Your task to perform on an android device: turn on sleep mode Image 0: 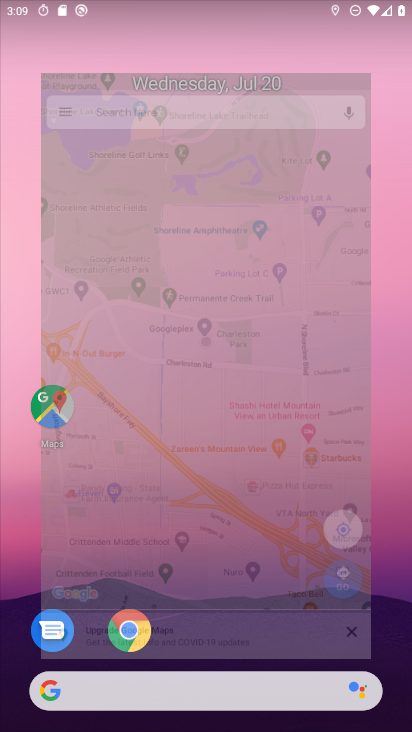
Step 0: click (308, 240)
Your task to perform on an android device: turn on sleep mode Image 1: 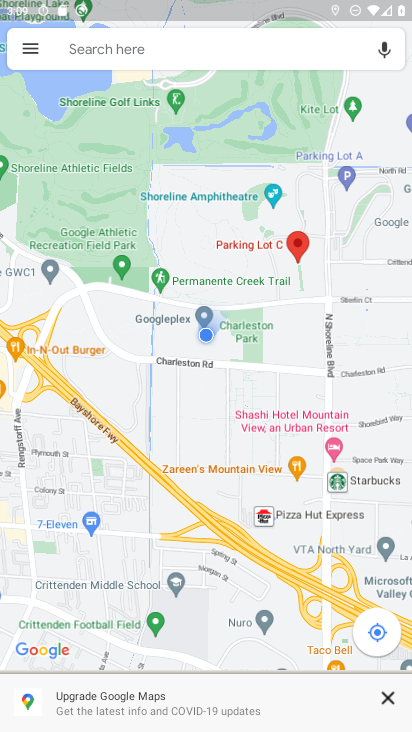
Step 1: press back button
Your task to perform on an android device: turn on sleep mode Image 2: 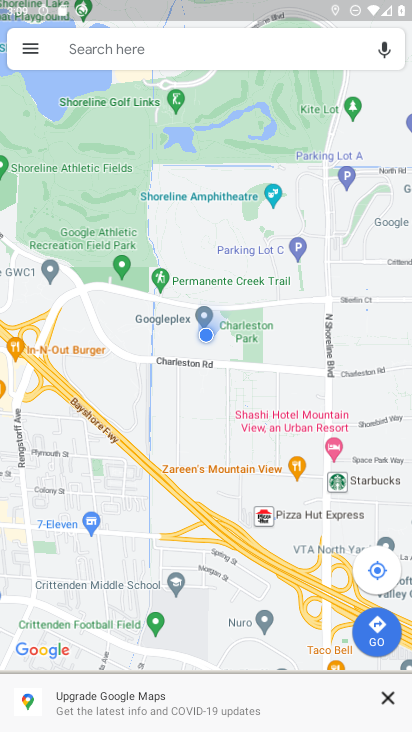
Step 2: press home button
Your task to perform on an android device: turn on sleep mode Image 3: 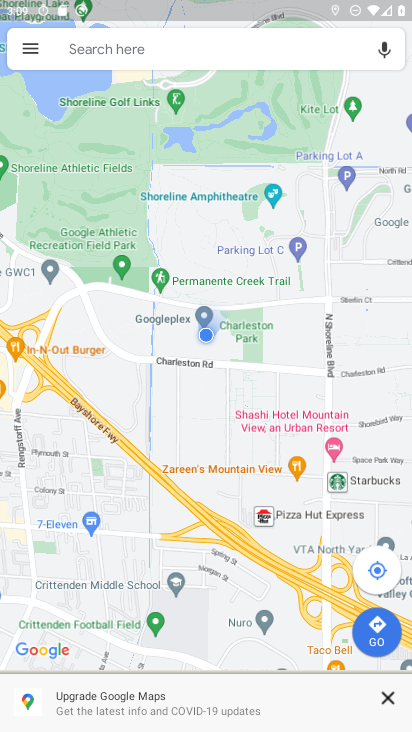
Step 3: click (249, 171)
Your task to perform on an android device: turn on sleep mode Image 4: 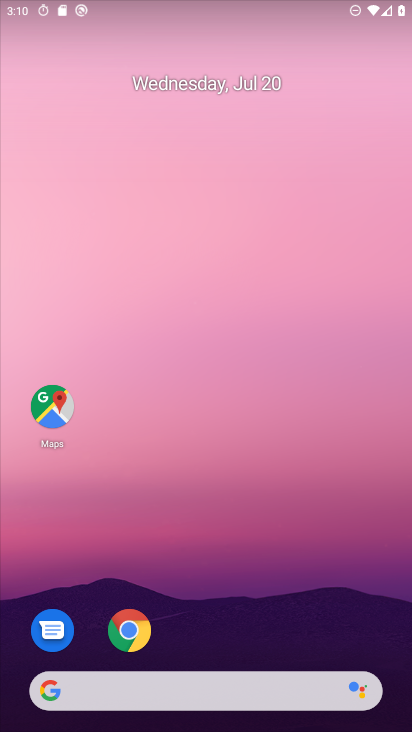
Step 4: drag from (261, 515) to (252, 223)
Your task to perform on an android device: turn on sleep mode Image 5: 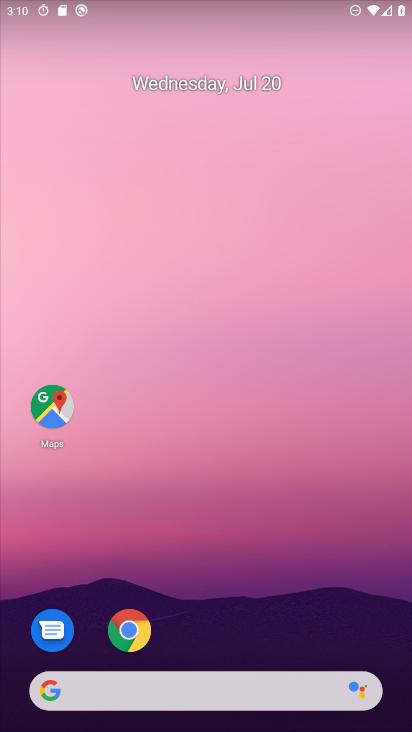
Step 5: drag from (226, 429) to (241, 34)
Your task to perform on an android device: turn on sleep mode Image 6: 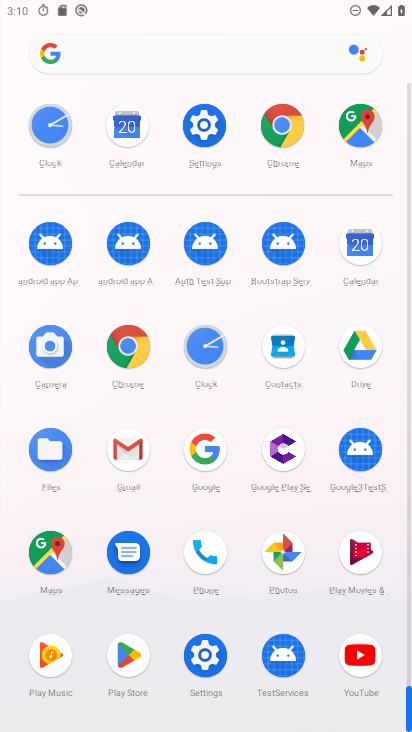
Step 6: click (213, 120)
Your task to perform on an android device: turn on sleep mode Image 7: 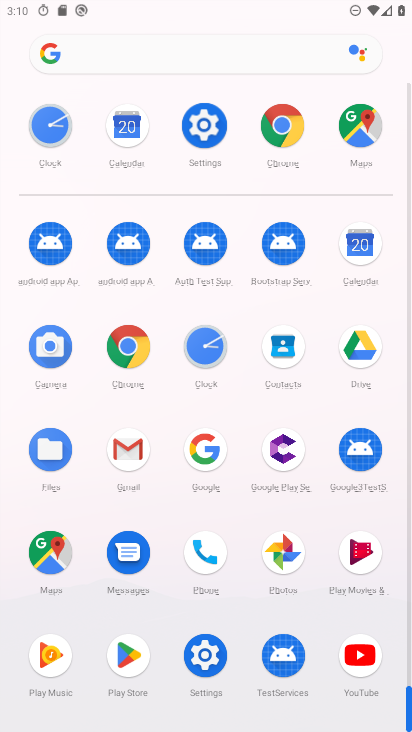
Step 7: click (212, 121)
Your task to perform on an android device: turn on sleep mode Image 8: 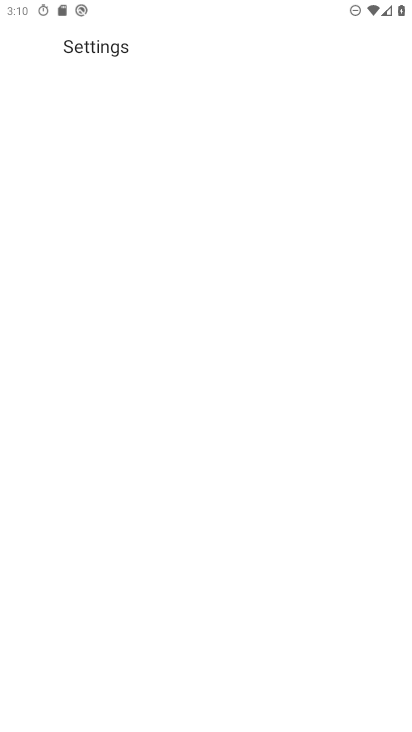
Step 8: click (201, 125)
Your task to perform on an android device: turn on sleep mode Image 9: 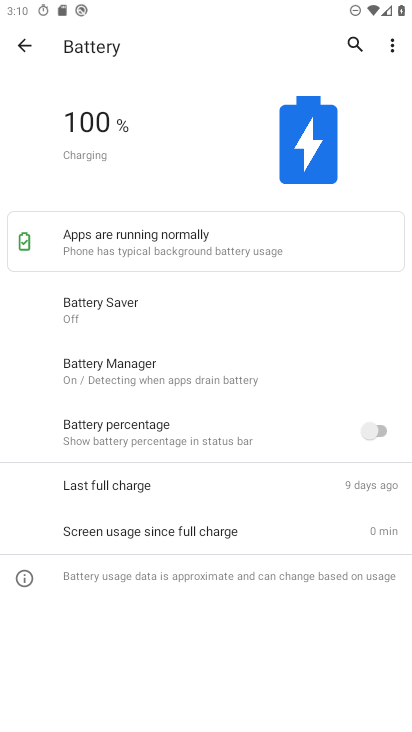
Step 9: click (15, 60)
Your task to perform on an android device: turn on sleep mode Image 10: 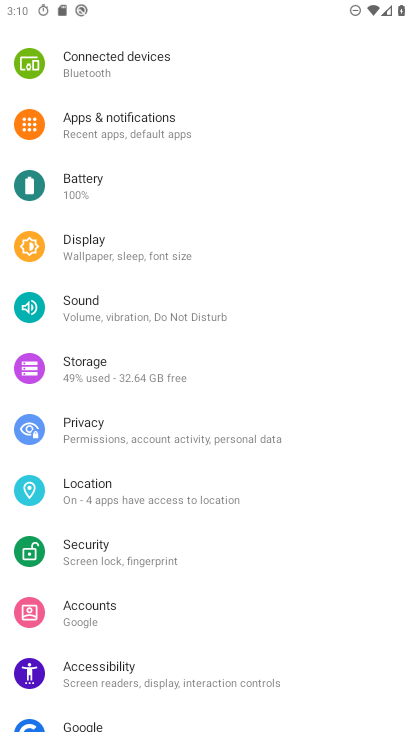
Step 10: click (108, 244)
Your task to perform on an android device: turn on sleep mode Image 11: 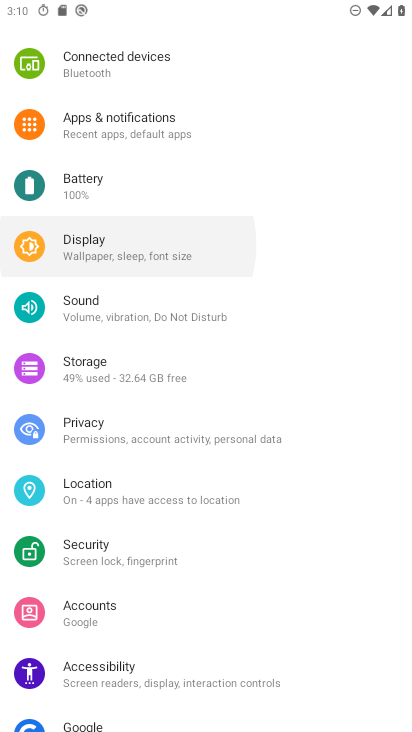
Step 11: click (108, 244)
Your task to perform on an android device: turn on sleep mode Image 12: 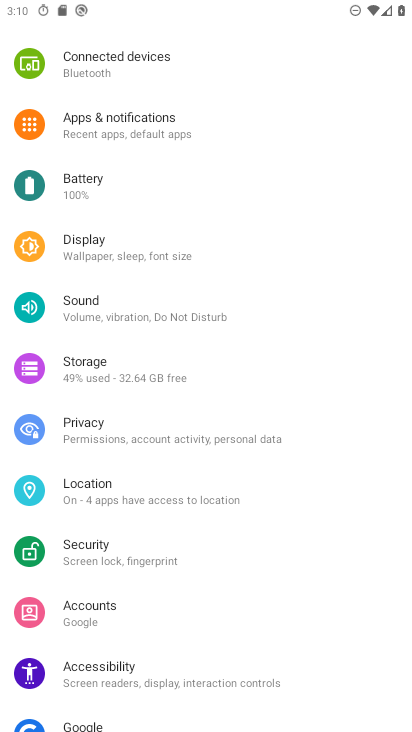
Step 12: click (108, 244)
Your task to perform on an android device: turn on sleep mode Image 13: 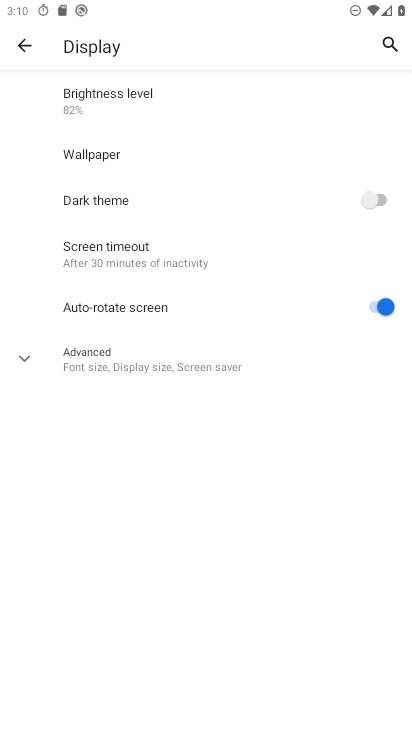
Step 13: task complete